Your task to perform on an android device: delete the emails in spam in the gmail app Image 0: 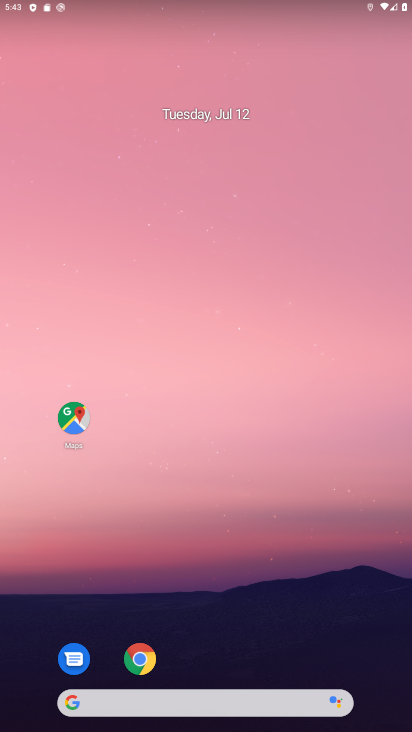
Step 0: drag from (217, 635) to (226, 31)
Your task to perform on an android device: delete the emails in spam in the gmail app Image 1: 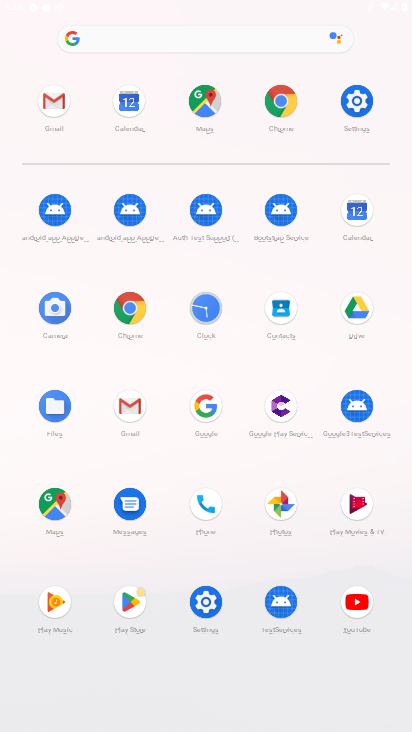
Step 1: click (131, 414)
Your task to perform on an android device: delete the emails in spam in the gmail app Image 2: 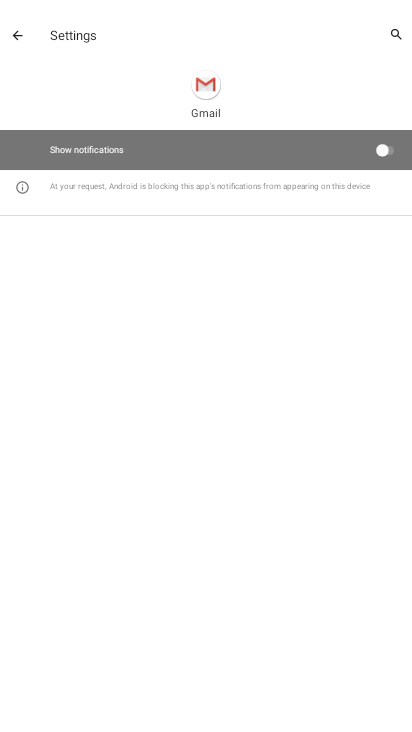
Step 2: click (19, 33)
Your task to perform on an android device: delete the emails in spam in the gmail app Image 3: 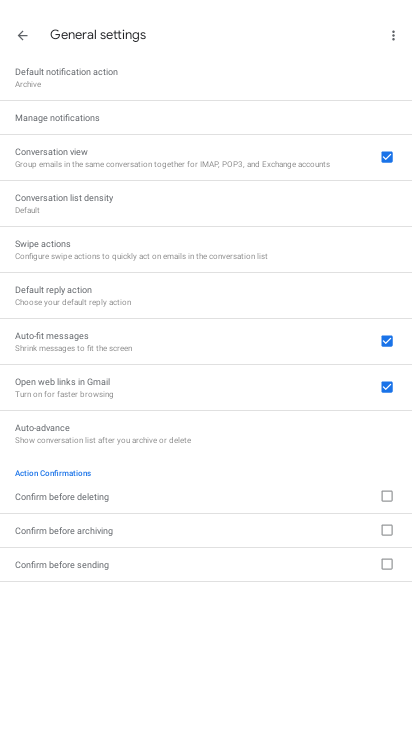
Step 3: click (18, 33)
Your task to perform on an android device: delete the emails in spam in the gmail app Image 4: 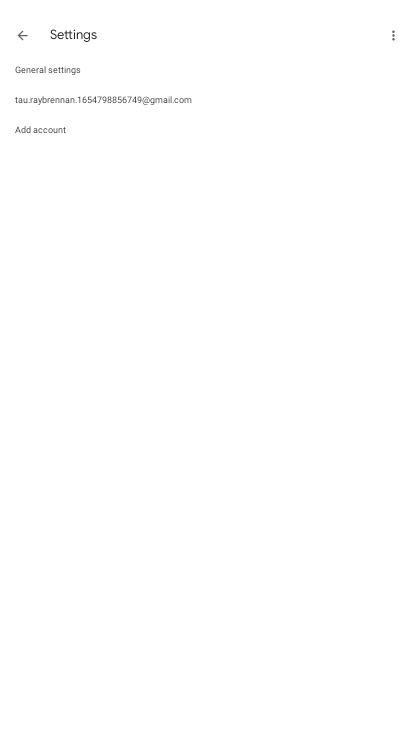
Step 4: click (18, 33)
Your task to perform on an android device: delete the emails in spam in the gmail app Image 5: 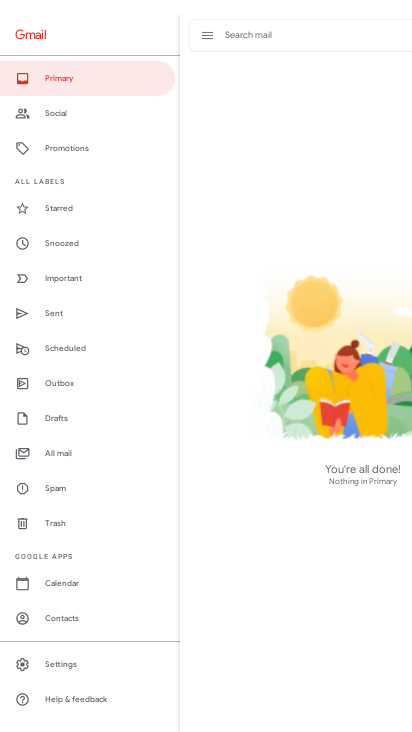
Step 5: click (65, 489)
Your task to perform on an android device: delete the emails in spam in the gmail app Image 6: 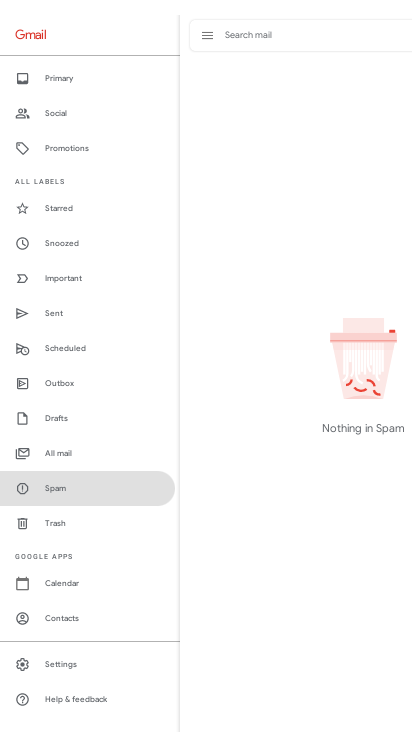
Step 6: task complete